Your task to perform on an android device: turn off translation in the chrome app Image 0: 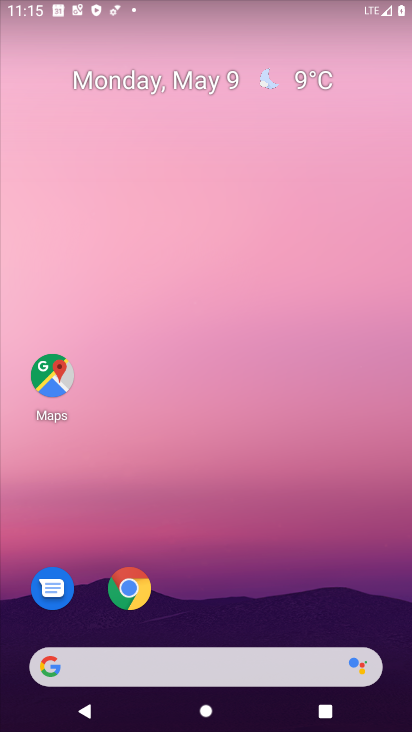
Step 0: press home button
Your task to perform on an android device: turn off translation in the chrome app Image 1: 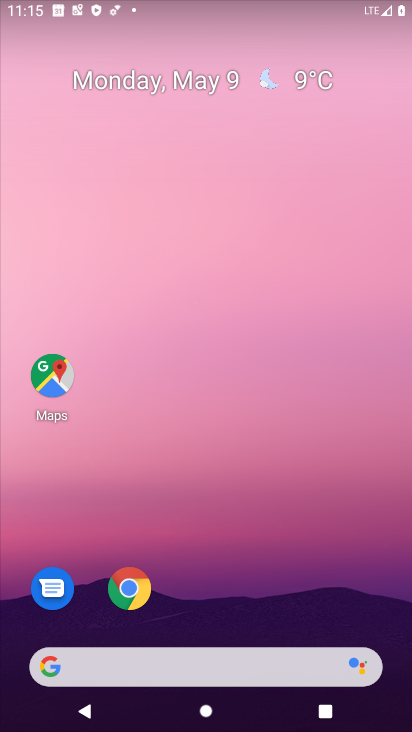
Step 1: drag from (182, 660) to (322, 73)
Your task to perform on an android device: turn off translation in the chrome app Image 2: 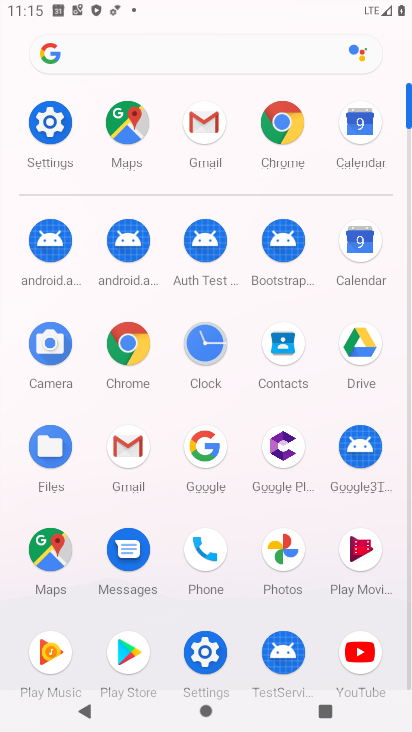
Step 2: click (279, 132)
Your task to perform on an android device: turn off translation in the chrome app Image 3: 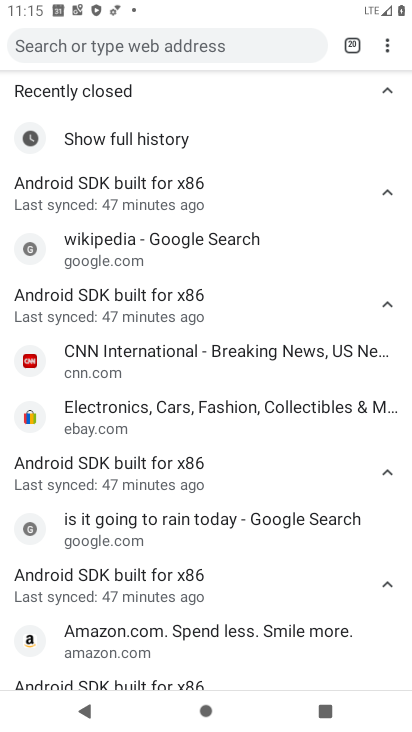
Step 3: drag from (385, 49) to (237, 382)
Your task to perform on an android device: turn off translation in the chrome app Image 4: 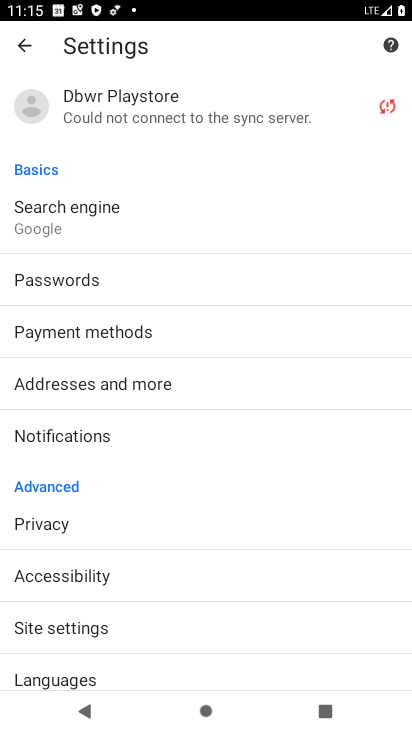
Step 4: click (100, 680)
Your task to perform on an android device: turn off translation in the chrome app Image 5: 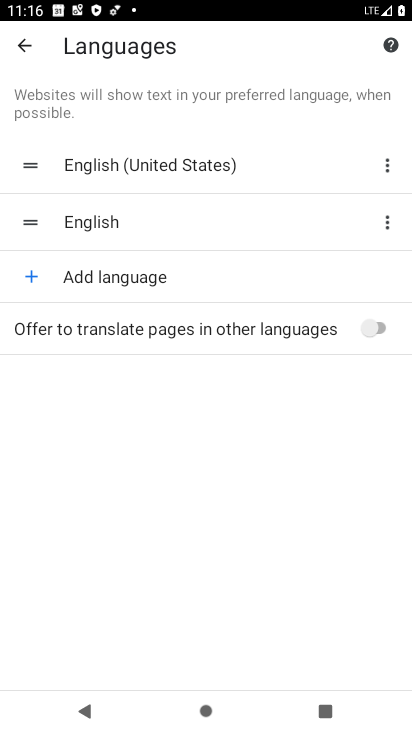
Step 5: task complete